Your task to perform on an android device: turn off priority inbox in the gmail app Image 0: 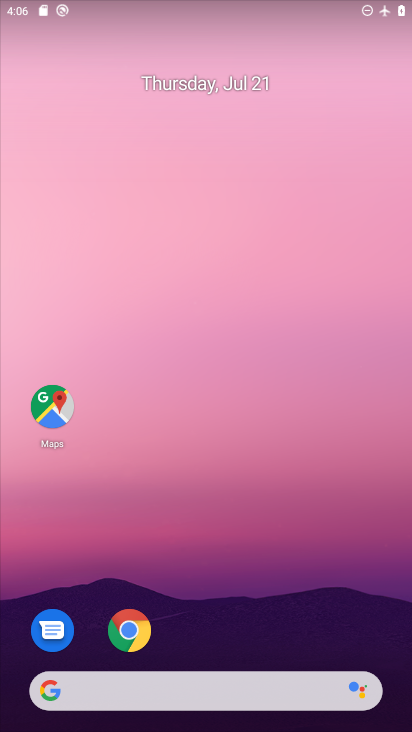
Step 0: drag from (212, 655) to (275, 67)
Your task to perform on an android device: turn off priority inbox in the gmail app Image 1: 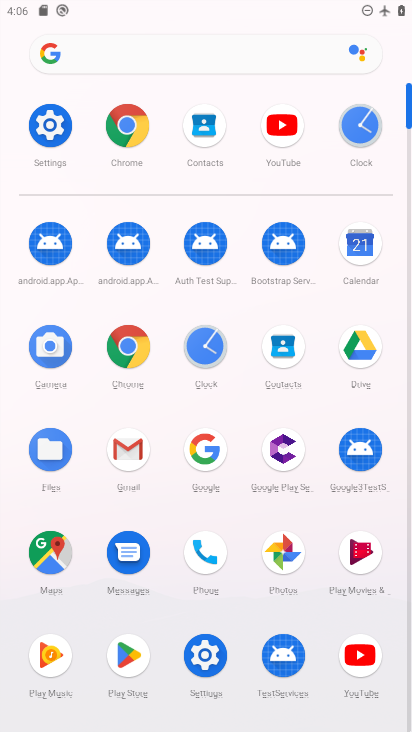
Step 1: click (126, 457)
Your task to perform on an android device: turn off priority inbox in the gmail app Image 2: 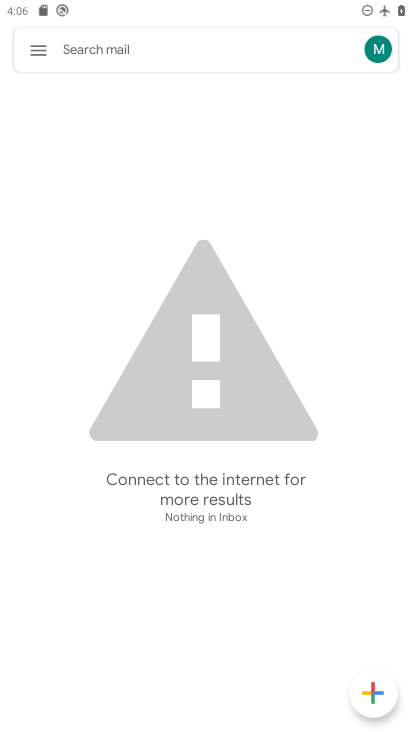
Step 2: click (34, 51)
Your task to perform on an android device: turn off priority inbox in the gmail app Image 3: 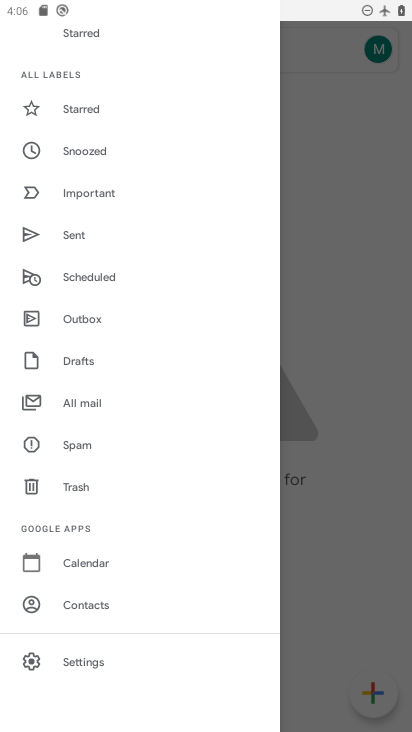
Step 3: click (78, 675)
Your task to perform on an android device: turn off priority inbox in the gmail app Image 4: 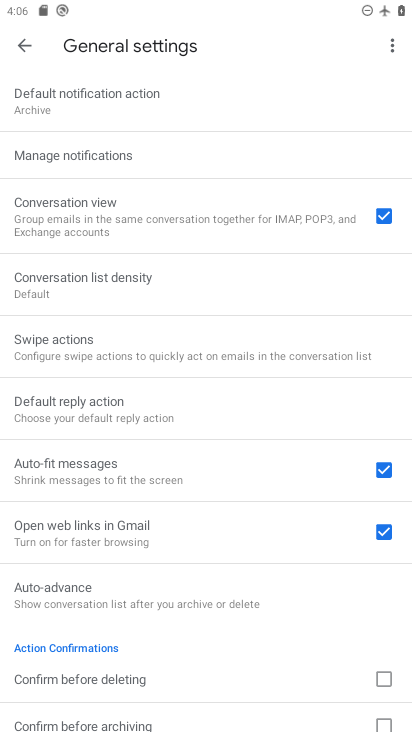
Step 4: click (18, 53)
Your task to perform on an android device: turn off priority inbox in the gmail app Image 5: 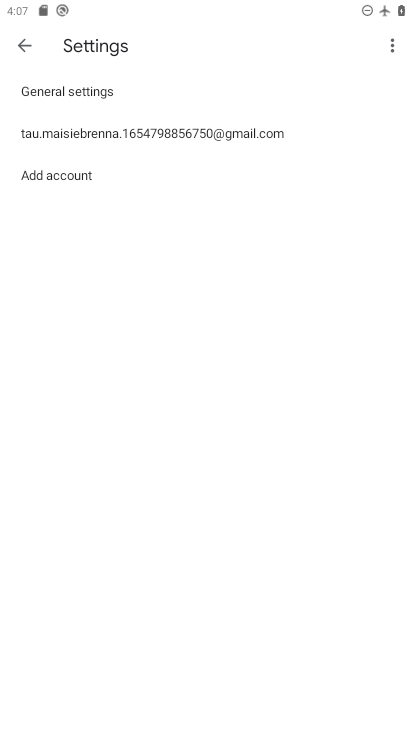
Step 5: click (123, 132)
Your task to perform on an android device: turn off priority inbox in the gmail app Image 6: 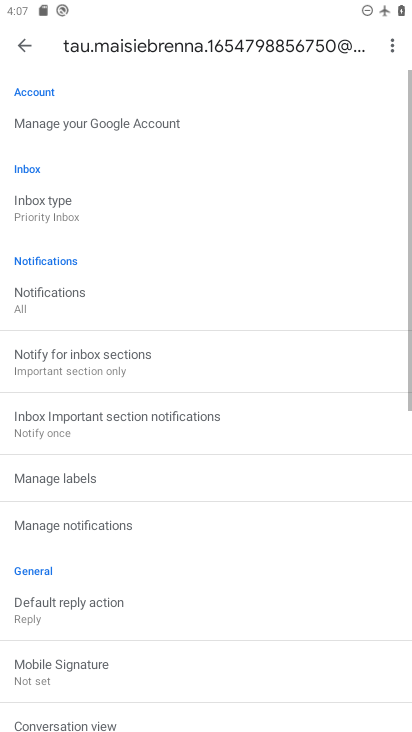
Step 6: click (47, 208)
Your task to perform on an android device: turn off priority inbox in the gmail app Image 7: 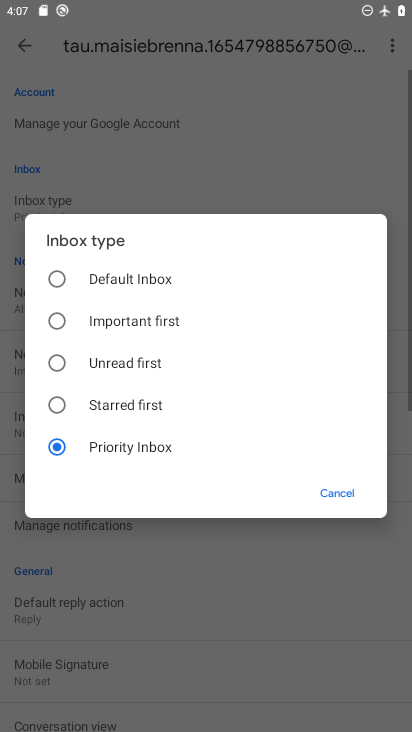
Step 7: click (77, 271)
Your task to perform on an android device: turn off priority inbox in the gmail app Image 8: 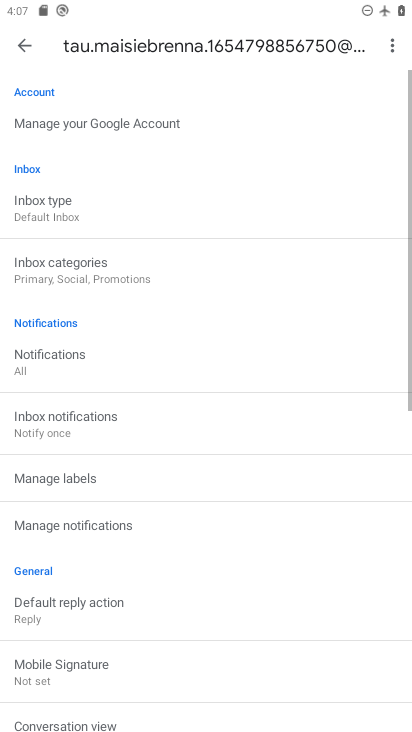
Step 8: task complete